Your task to perform on an android device: check battery use Image 0: 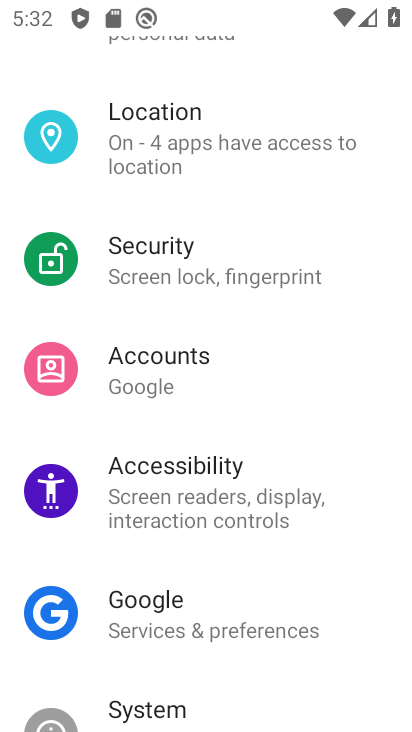
Step 0: drag from (193, 590) to (234, 0)
Your task to perform on an android device: check battery use Image 1: 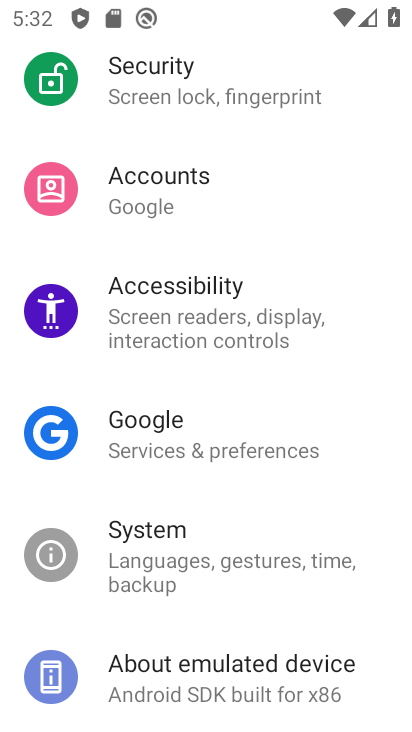
Step 1: drag from (226, 244) to (216, 525)
Your task to perform on an android device: check battery use Image 2: 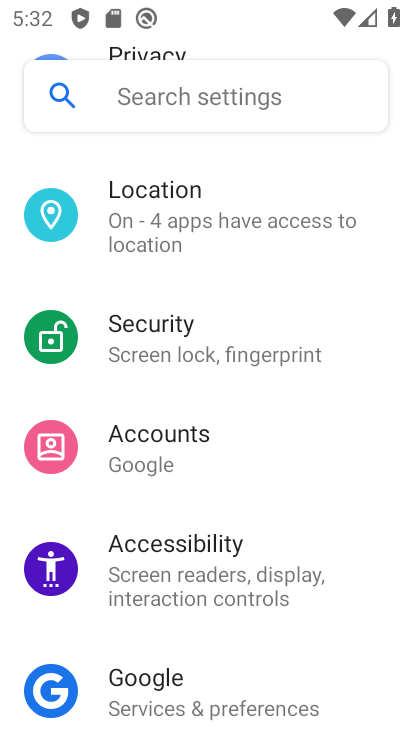
Step 2: drag from (164, 270) to (162, 553)
Your task to perform on an android device: check battery use Image 3: 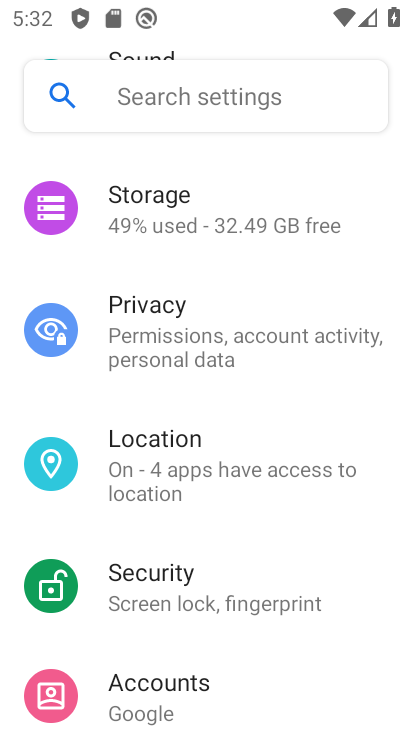
Step 3: drag from (184, 325) to (182, 503)
Your task to perform on an android device: check battery use Image 4: 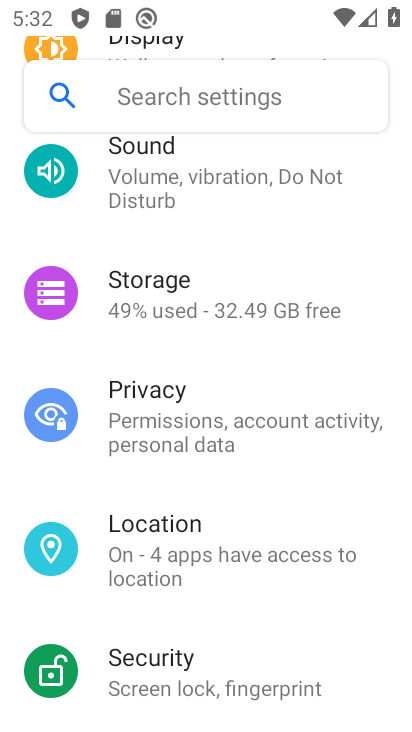
Step 4: drag from (185, 378) to (190, 588)
Your task to perform on an android device: check battery use Image 5: 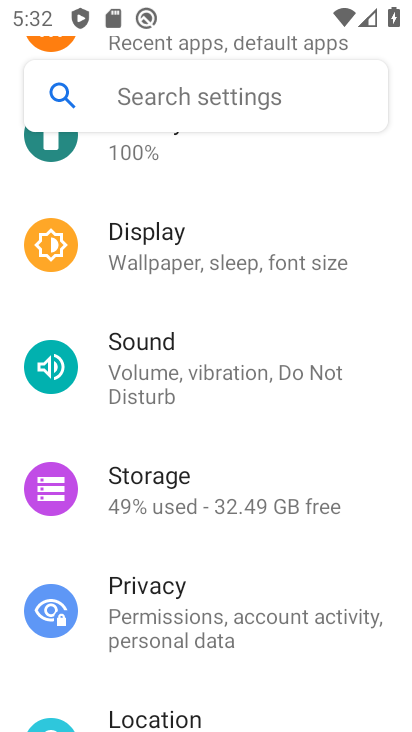
Step 5: drag from (188, 359) to (185, 602)
Your task to perform on an android device: check battery use Image 6: 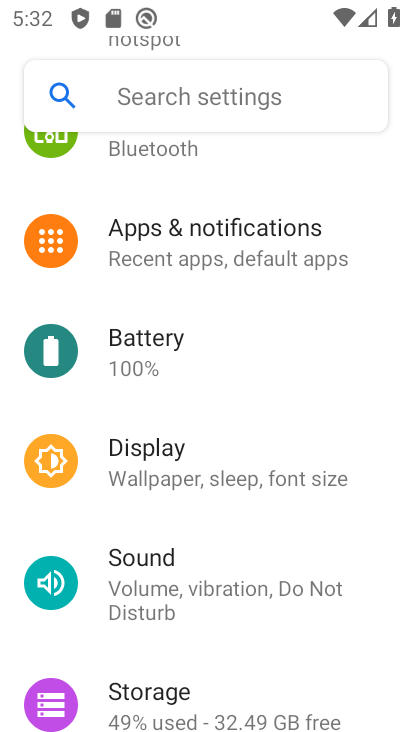
Step 6: click (157, 367)
Your task to perform on an android device: check battery use Image 7: 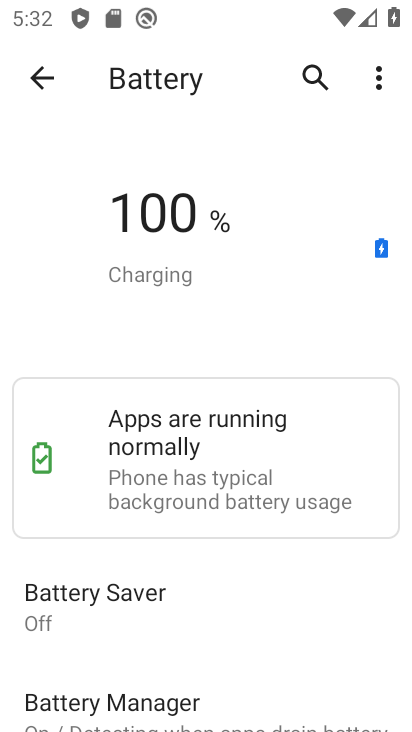
Step 7: task complete